Your task to perform on an android device: Show the shopping cart on target. Search for logitech g pro on target, select the first entry, add it to the cart, then select checkout. Image 0: 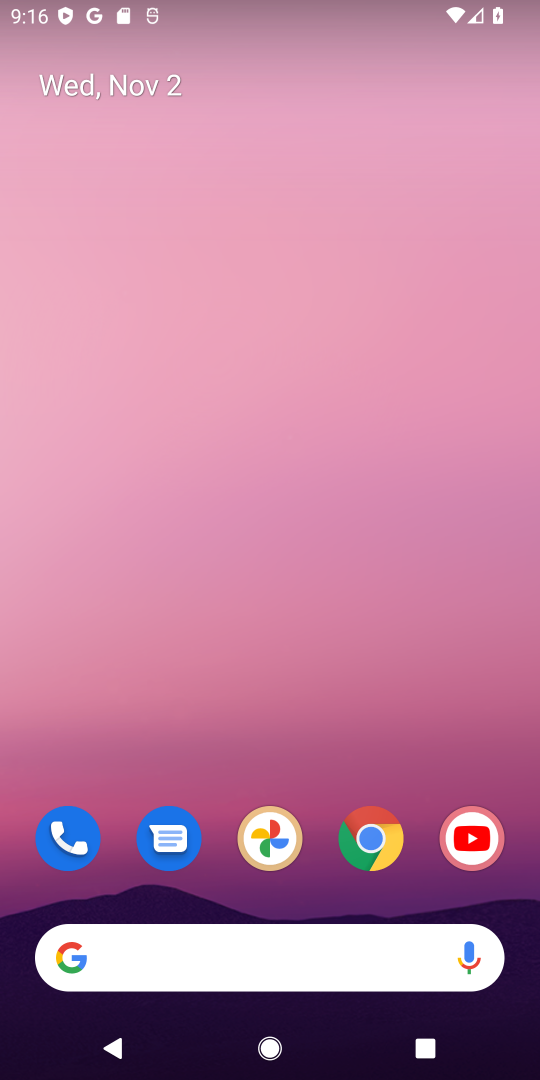
Step 0: click (376, 855)
Your task to perform on an android device: Show the shopping cart on target. Search for logitech g pro on target, select the first entry, add it to the cart, then select checkout. Image 1: 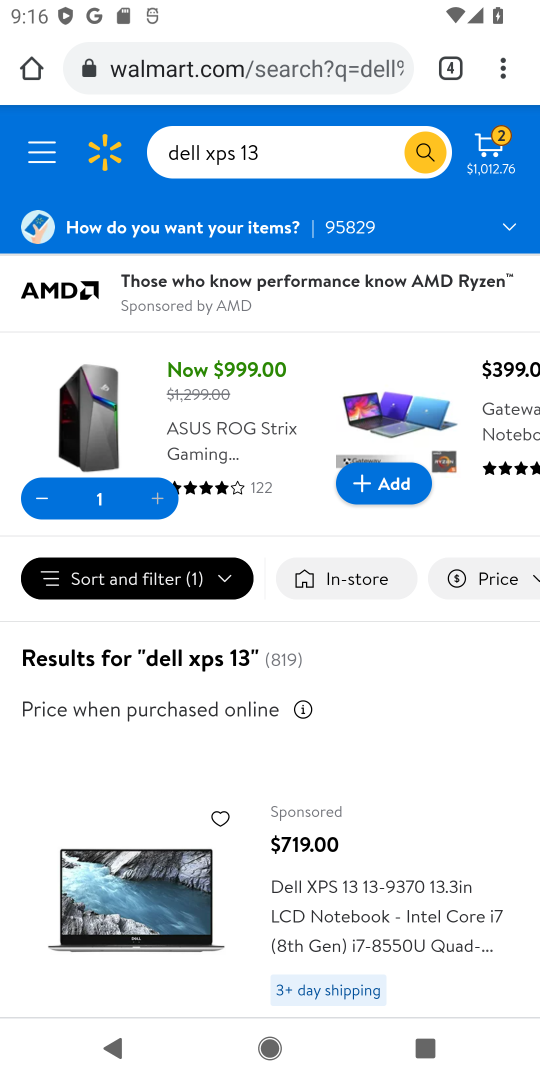
Step 1: click (448, 69)
Your task to perform on an android device: Show the shopping cart on target. Search for logitech g pro on target, select the first entry, add it to the cart, then select checkout. Image 2: 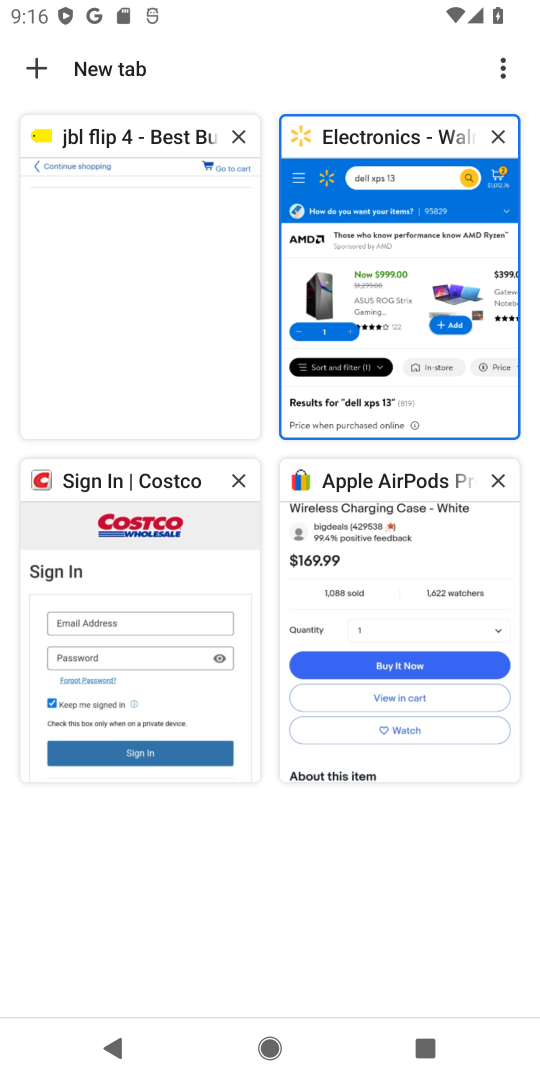
Step 2: click (24, 63)
Your task to perform on an android device: Show the shopping cart on target. Search for logitech g pro on target, select the first entry, add it to the cart, then select checkout. Image 3: 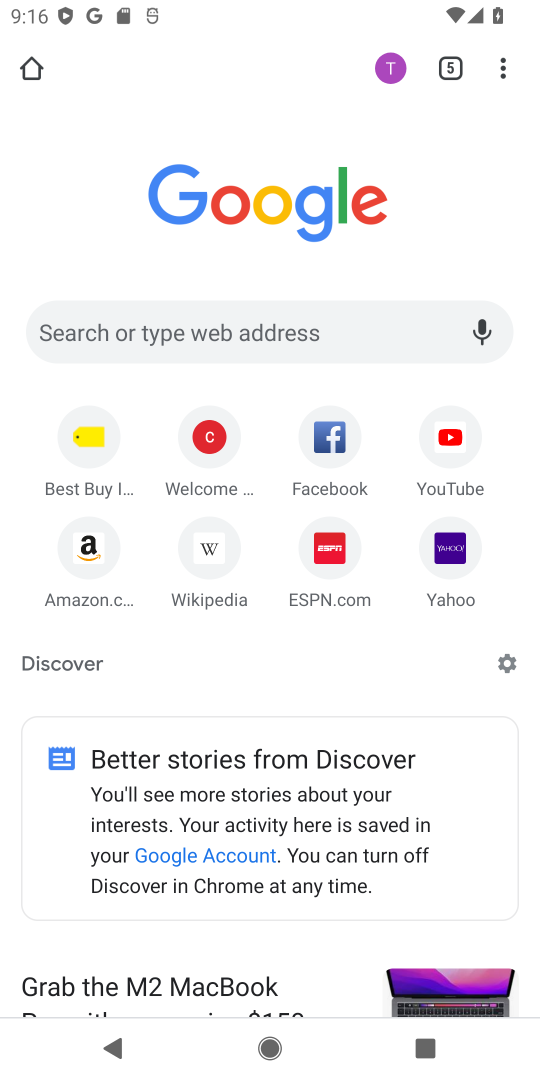
Step 3: click (209, 322)
Your task to perform on an android device: Show the shopping cart on target. Search for logitech g pro on target, select the first entry, add it to the cart, then select checkout. Image 4: 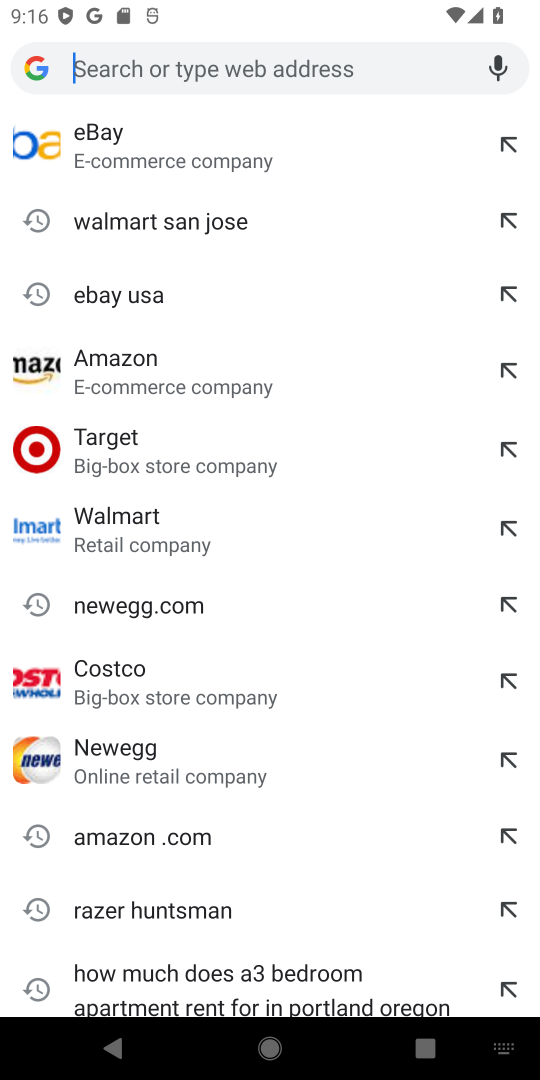
Step 4: click (204, 442)
Your task to perform on an android device: Show the shopping cart on target. Search for logitech g pro on target, select the first entry, add it to the cart, then select checkout. Image 5: 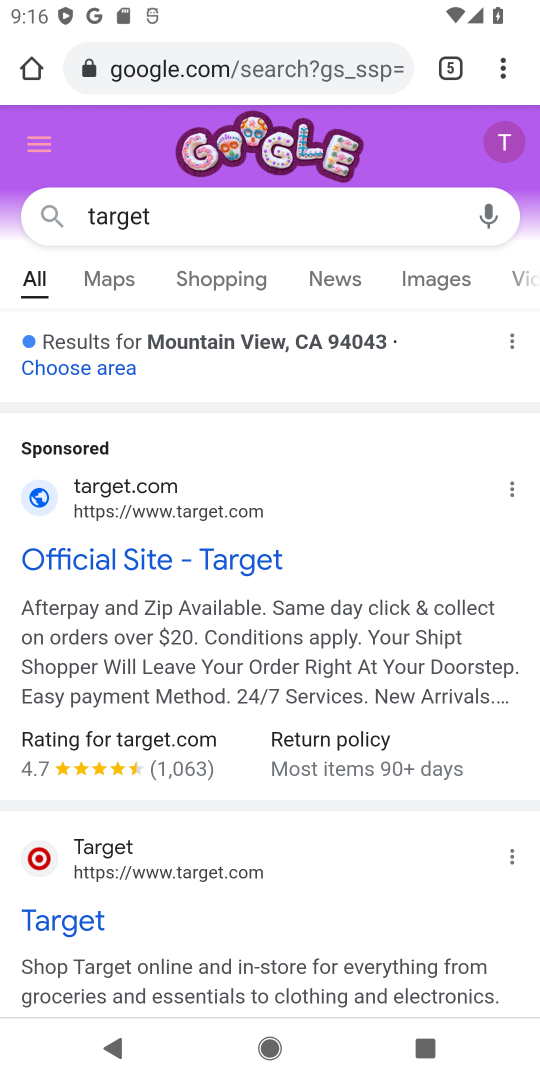
Step 5: drag from (187, 929) to (279, 464)
Your task to perform on an android device: Show the shopping cart on target. Search for logitech g pro on target, select the first entry, add it to the cart, then select checkout. Image 6: 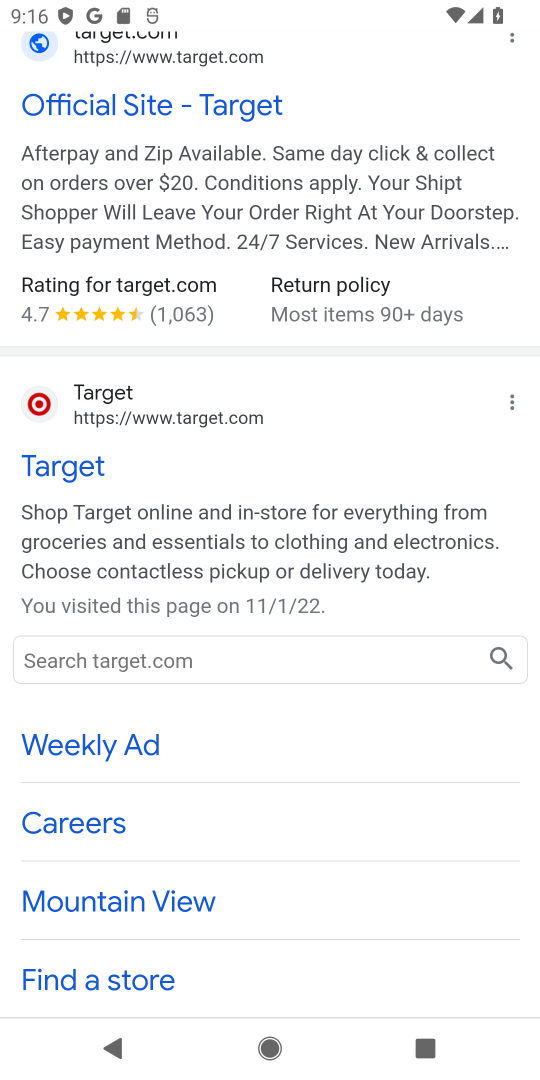
Step 6: click (72, 661)
Your task to perform on an android device: Show the shopping cart on target. Search for logitech g pro on target, select the first entry, add it to the cart, then select checkout. Image 7: 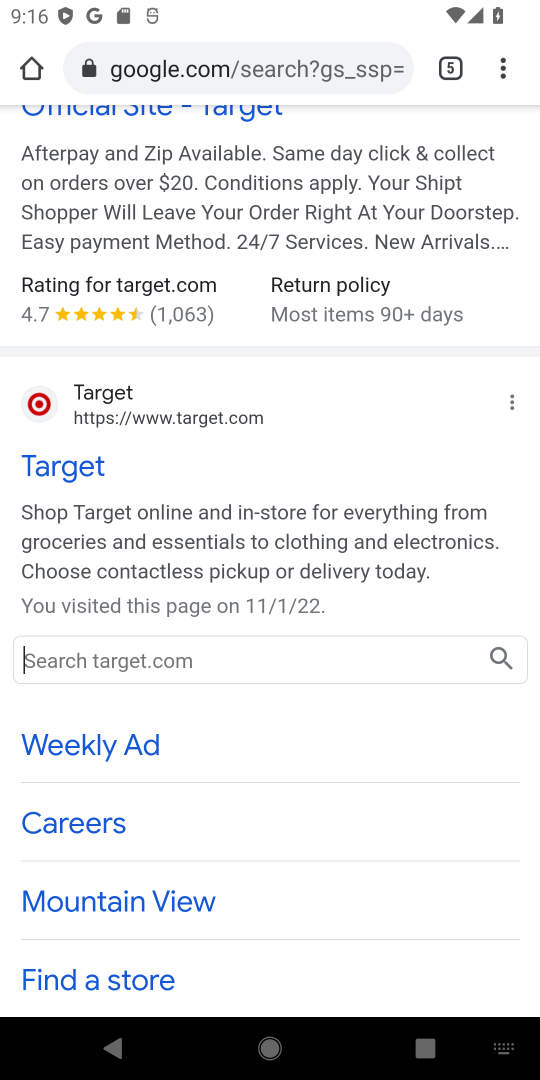
Step 7: type "logitech g pro"
Your task to perform on an android device: Show the shopping cart on target. Search for logitech g pro on target, select the first entry, add it to the cart, then select checkout. Image 8: 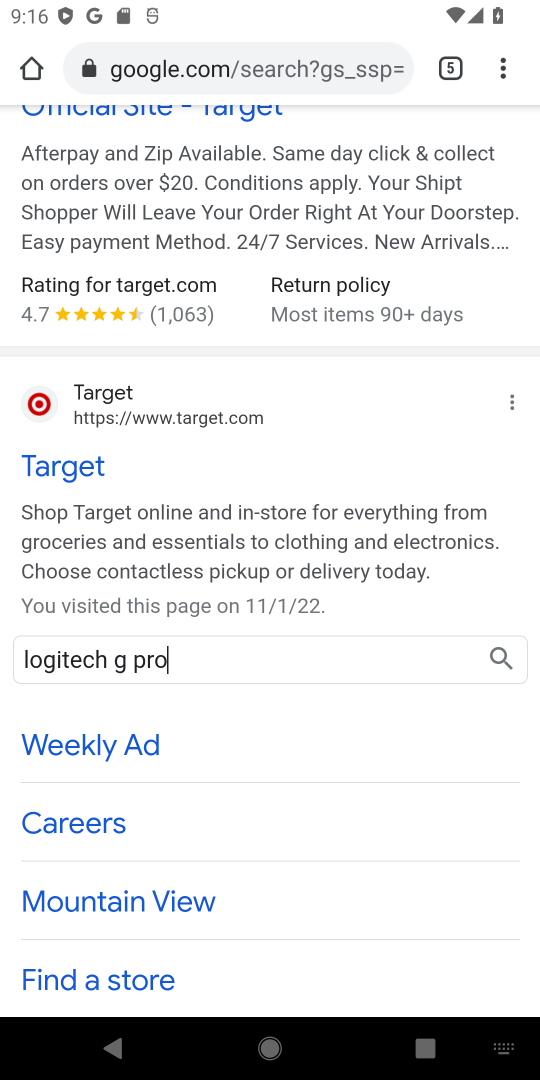
Step 8: click (495, 653)
Your task to perform on an android device: Show the shopping cart on target. Search for logitech g pro on target, select the first entry, add it to the cart, then select checkout. Image 9: 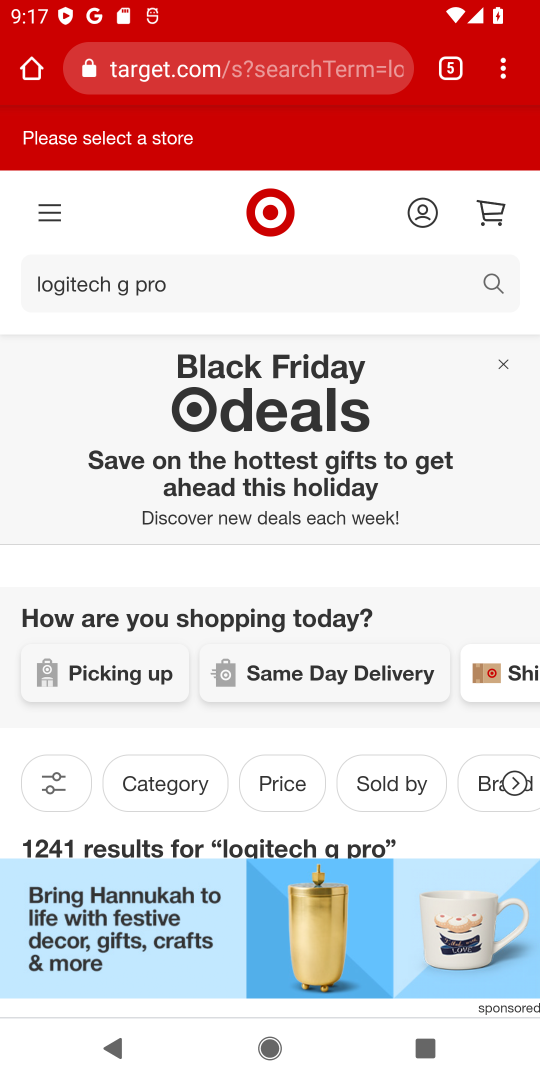
Step 9: drag from (354, 906) to (410, 153)
Your task to perform on an android device: Show the shopping cart on target. Search for logitech g pro on target, select the first entry, add it to the cart, then select checkout. Image 10: 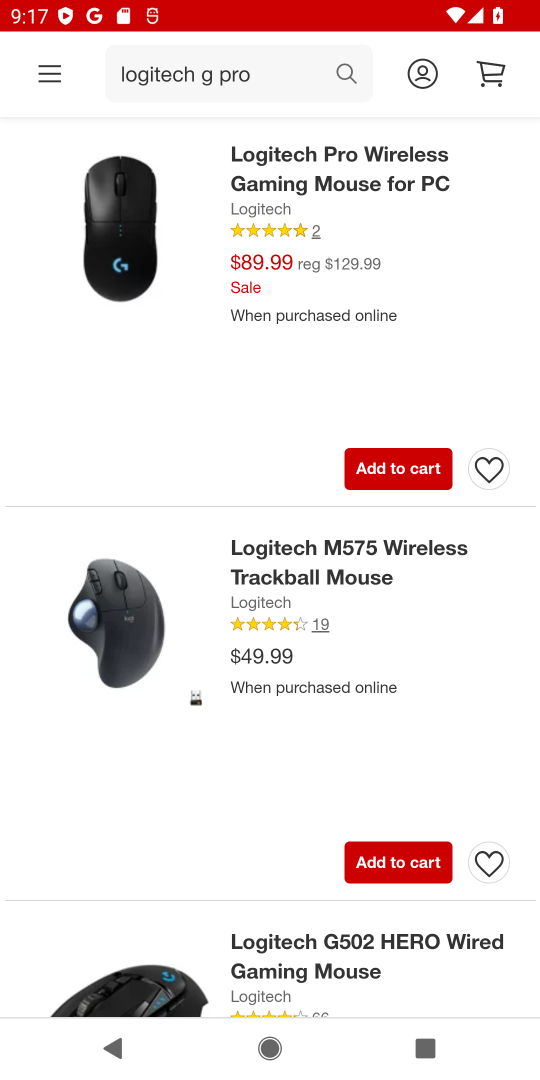
Step 10: click (384, 468)
Your task to perform on an android device: Show the shopping cart on target. Search for logitech g pro on target, select the first entry, add it to the cart, then select checkout. Image 11: 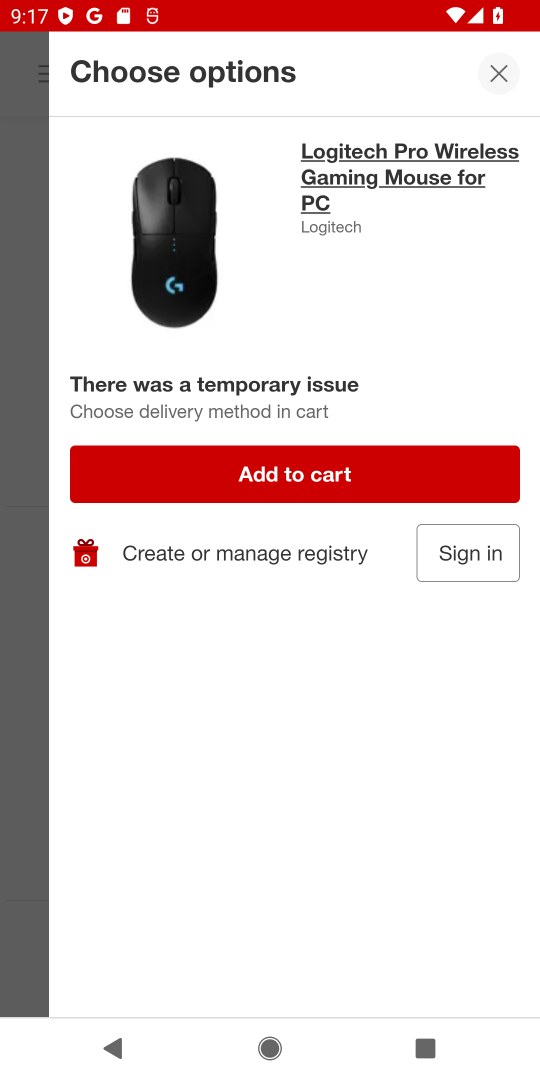
Step 11: click (180, 480)
Your task to perform on an android device: Show the shopping cart on target. Search for logitech g pro on target, select the first entry, add it to the cart, then select checkout. Image 12: 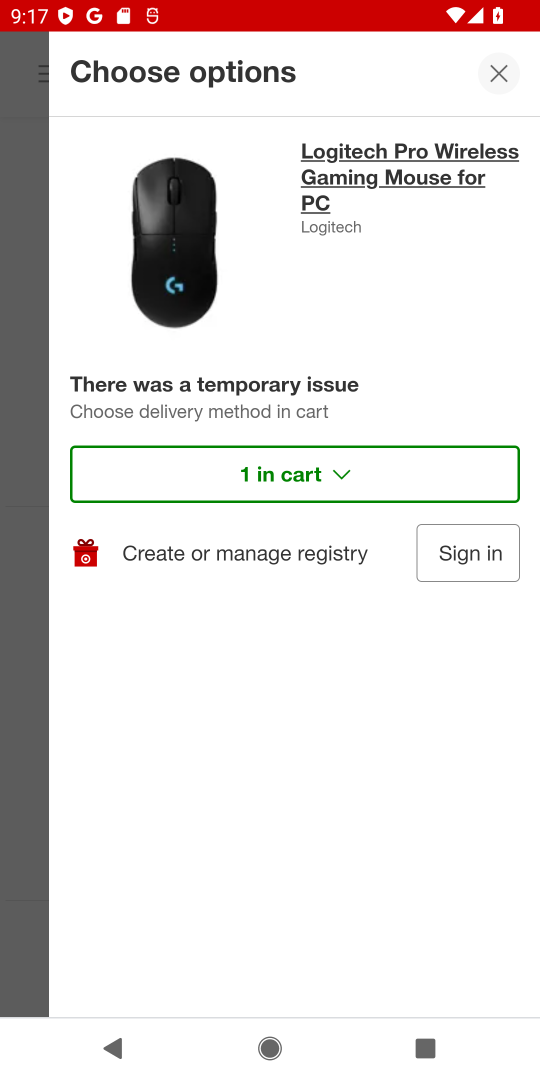
Step 12: task complete